Your task to perform on an android device: Turn on the flashlight Image 0: 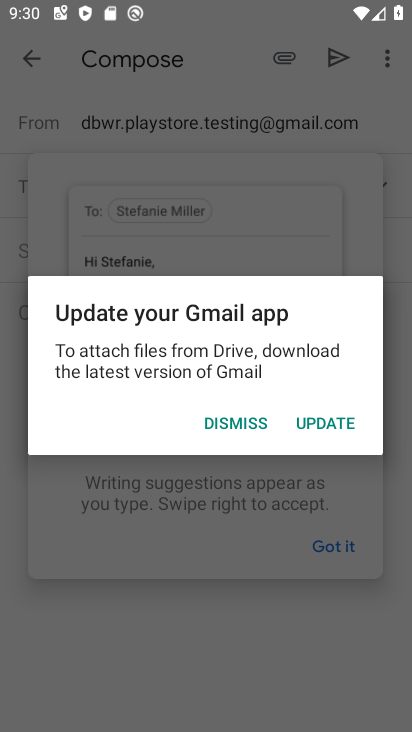
Step 0: press home button
Your task to perform on an android device: Turn on the flashlight Image 1: 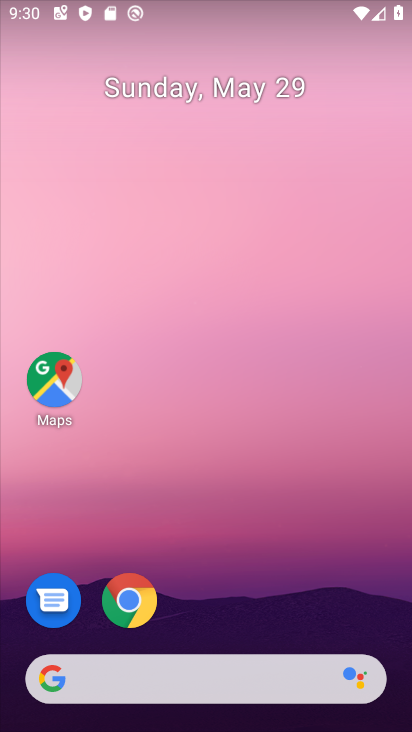
Step 1: drag from (216, 708) to (197, 179)
Your task to perform on an android device: Turn on the flashlight Image 2: 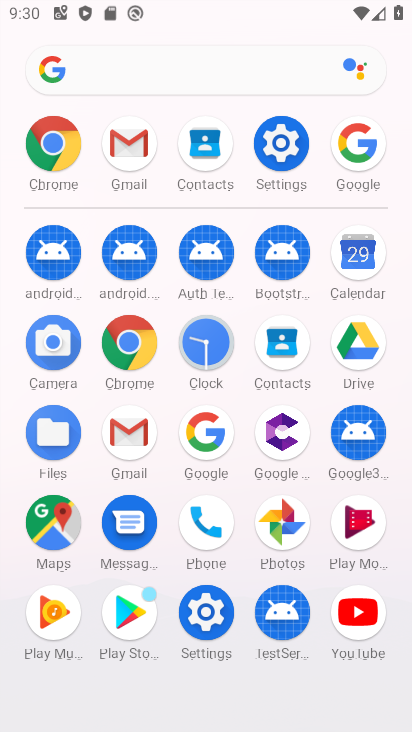
Step 2: click (282, 147)
Your task to perform on an android device: Turn on the flashlight Image 3: 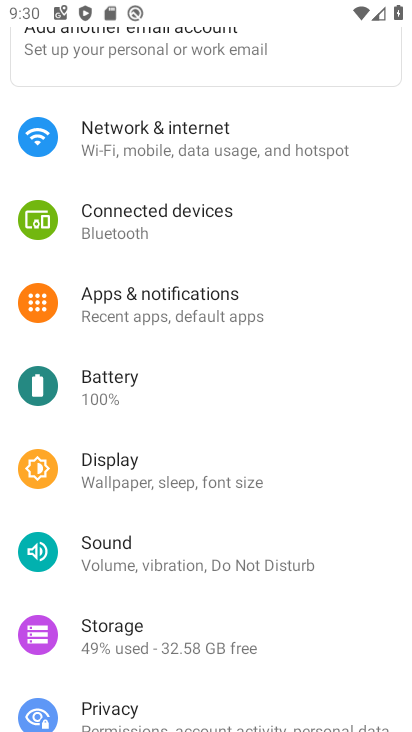
Step 3: task complete